Your task to perform on an android device: Show me popular games on the Play Store Image 0: 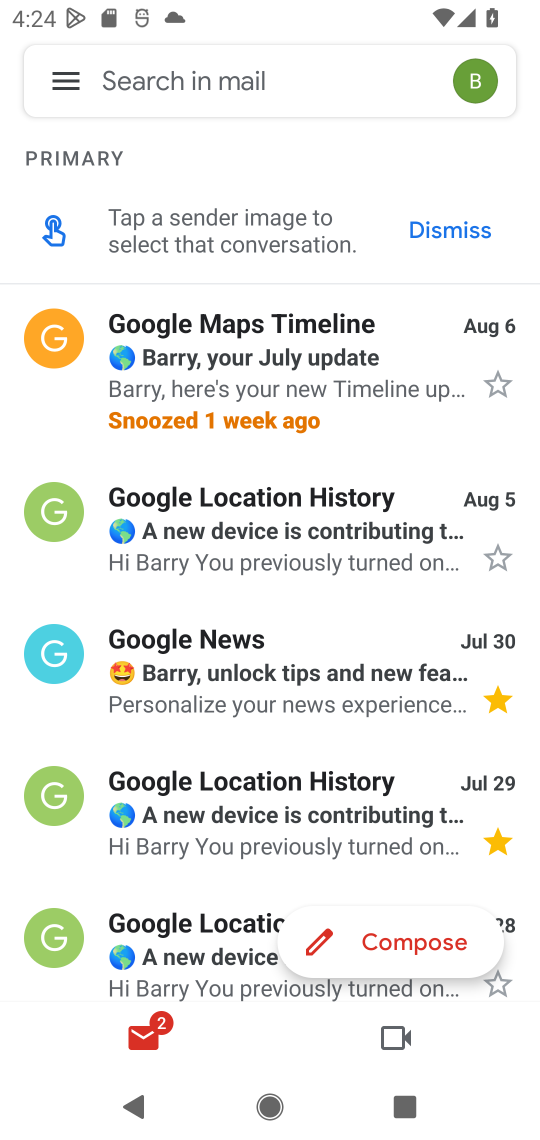
Step 0: task complete